Your task to perform on an android device: visit the assistant section in the google photos Image 0: 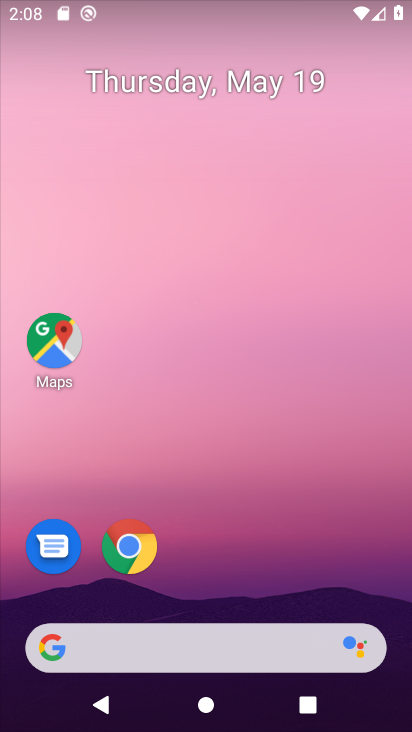
Step 0: drag from (236, 507) to (290, 84)
Your task to perform on an android device: visit the assistant section in the google photos Image 1: 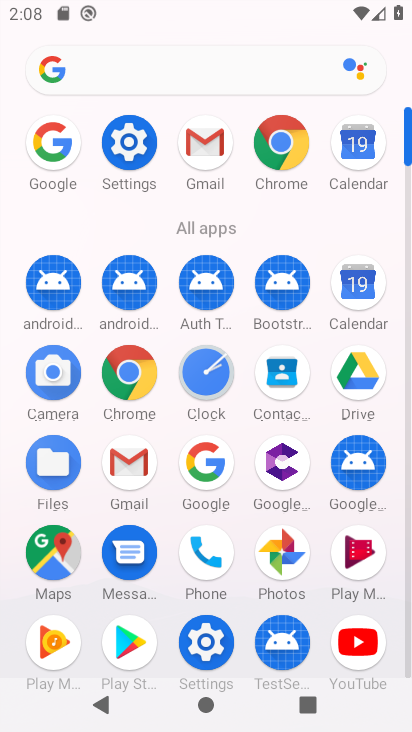
Step 1: click (288, 547)
Your task to perform on an android device: visit the assistant section in the google photos Image 2: 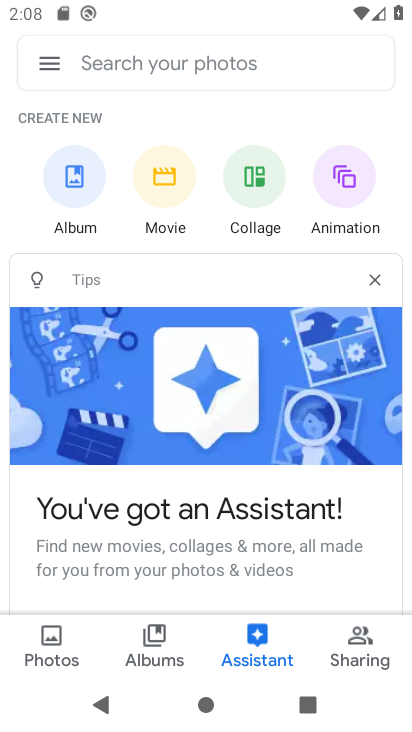
Step 2: task complete